Your task to perform on an android device: What's the weather today? Image 0: 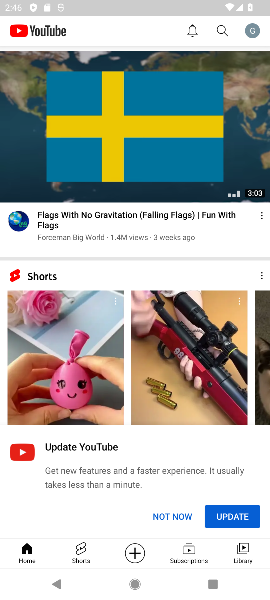
Step 0: press home button
Your task to perform on an android device: What's the weather today? Image 1: 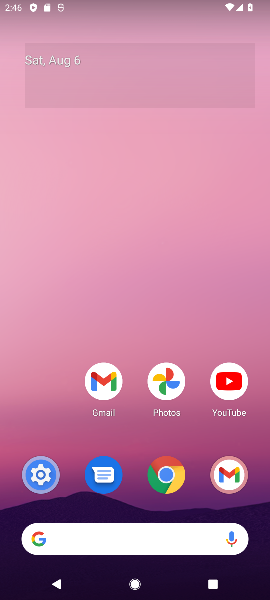
Step 1: click (71, 536)
Your task to perform on an android device: What's the weather today? Image 2: 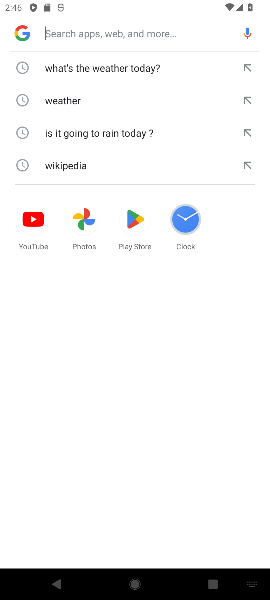
Step 2: click (155, 68)
Your task to perform on an android device: What's the weather today? Image 3: 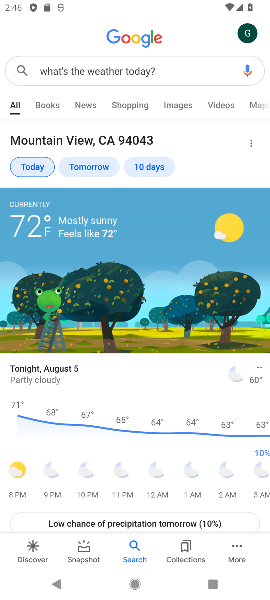
Step 3: task complete